Your task to perform on an android device: set the timer Image 0: 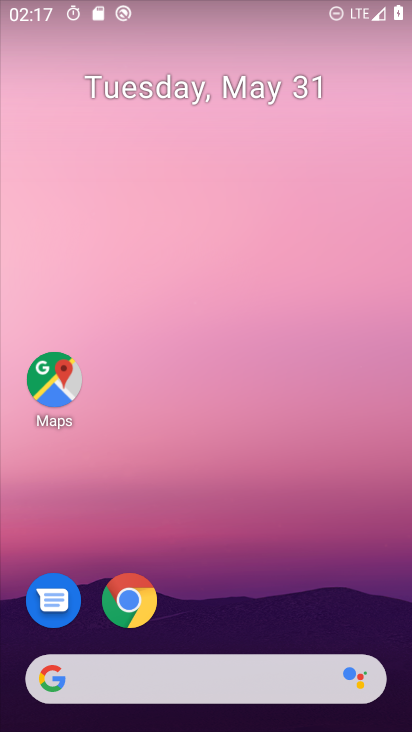
Step 0: drag from (217, 723) to (201, 120)
Your task to perform on an android device: set the timer Image 1: 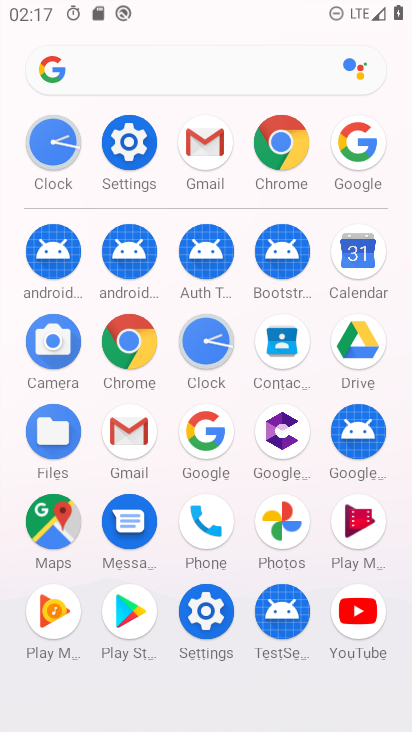
Step 1: click (201, 350)
Your task to perform on an android device: set the timer Image 2: 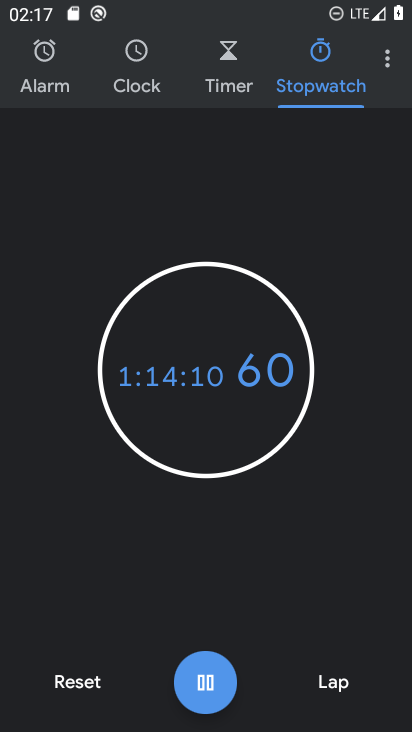
Step 2: click (225, 81)
Your task to perform on an android device: set the timer Image 3: 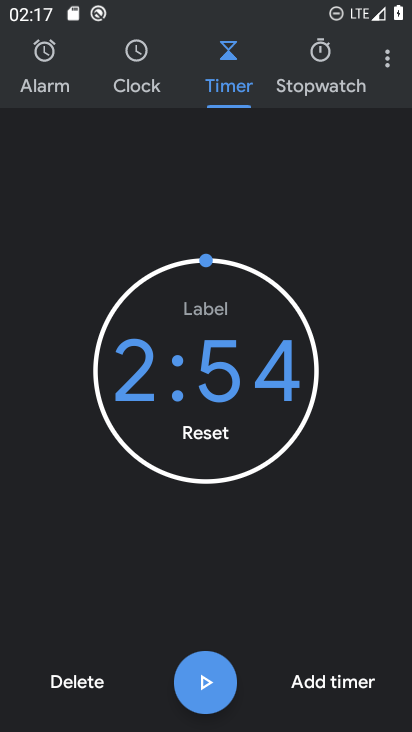
Step 3: click (335, 679)
Your task to perform on an android device: set the timer Image 4: 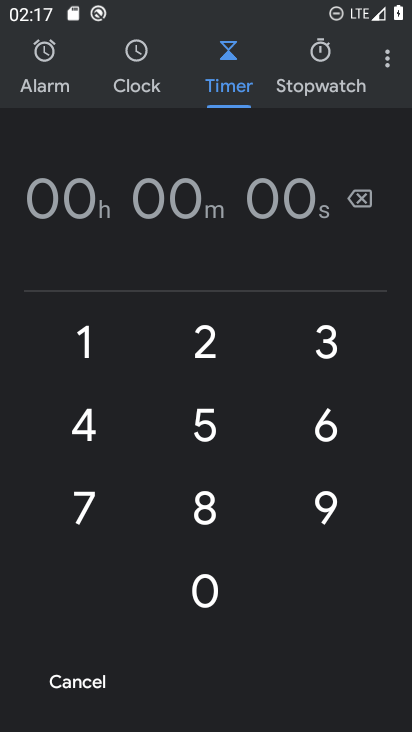
Step 4: click (192, 337)
Your task to perform on an android device: set the timer Image 5: 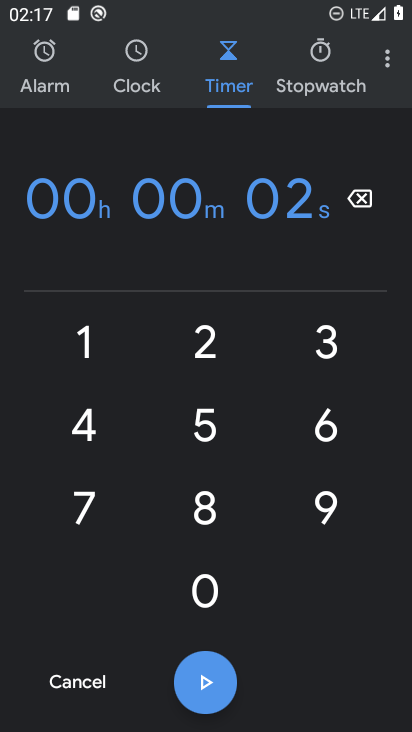
Step 5: click (84, 343)
Your task to perform on an android device: set the timer Image 6: 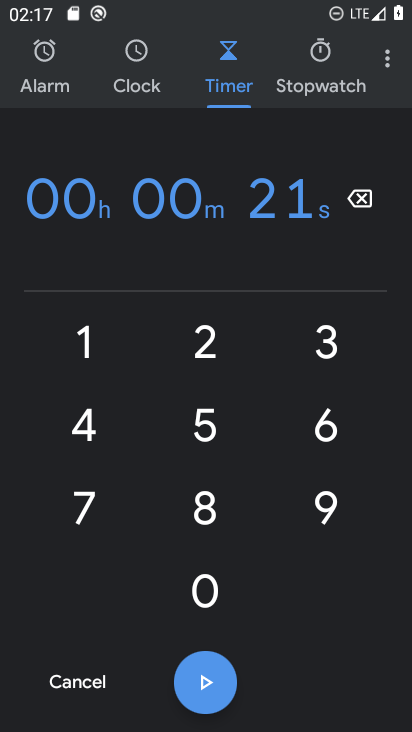
Step 6: click (66, 457)
Your task to perform on an android device: set the timer Image 7: 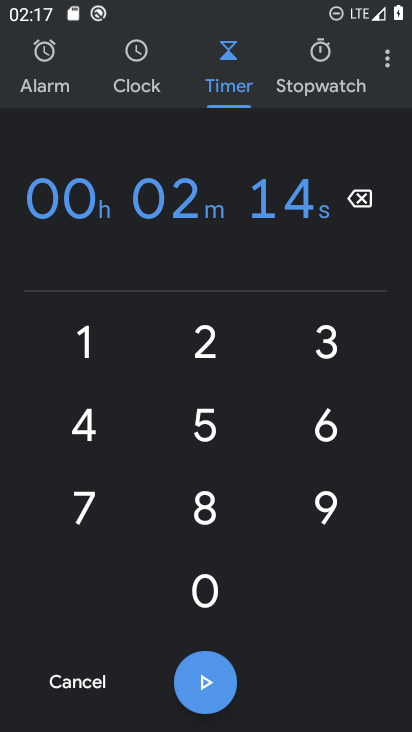
Step 7: click (194, 503)
Your task to perform on an android device: set the timer Image 8: 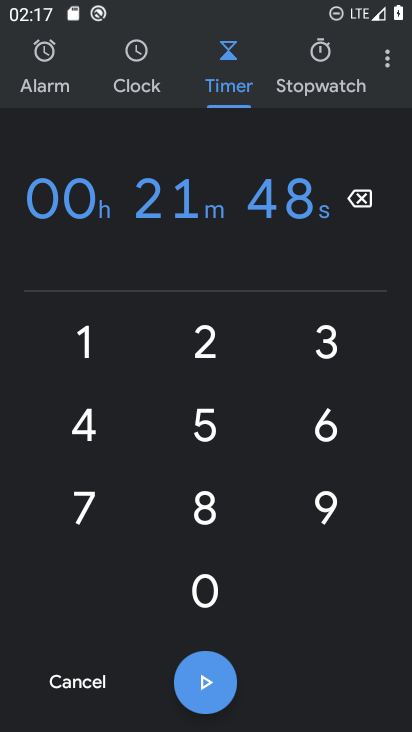
Step 8: click (211, 680)
Your task to perform on an android device: set the timer Image 9: 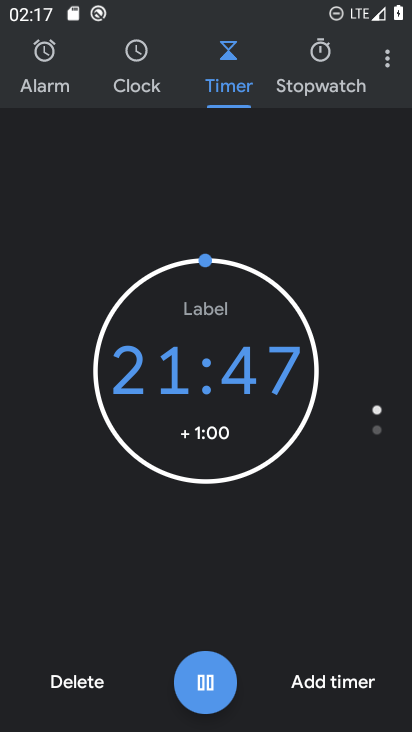
Step 9: task complete